Your task to perform on an android device: toggle sleep mode Image 0: 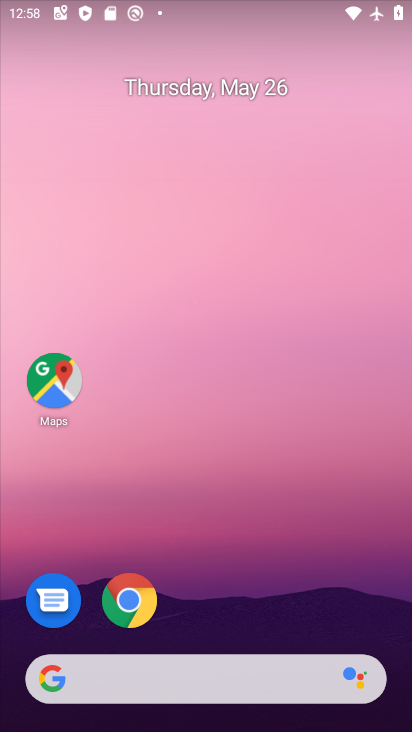
Step 0: drag from (284, 535) to (256, 126)
Your task to perform on an android device: toggle sleep mode Image 1: 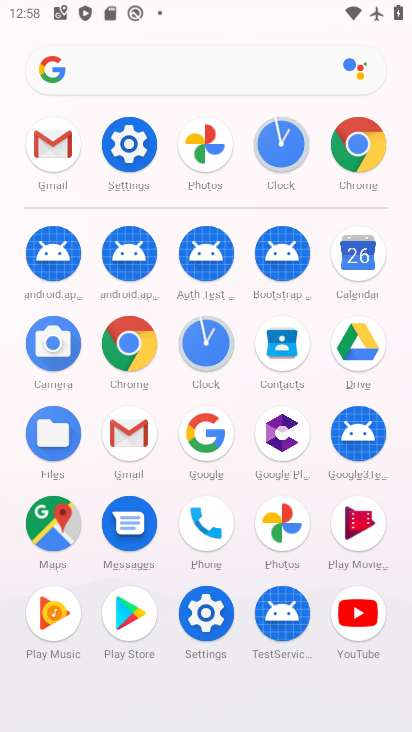
Step 1: click (137, 144)
Your task to perform on an android device: toggle sleep mode Image 2: 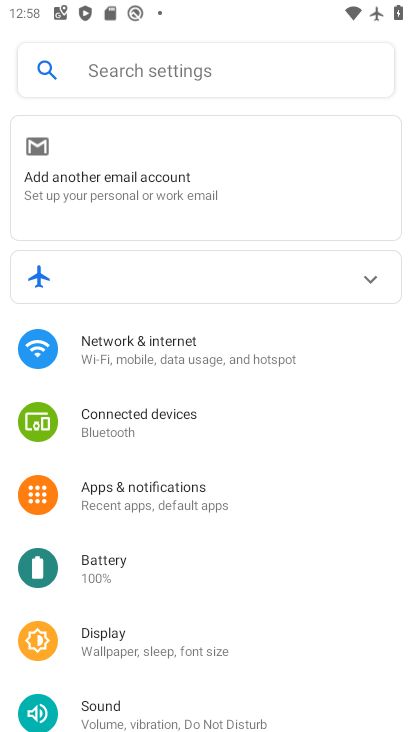
Step 2: drag from (230, 536) to (250, 226)
Your task to perform on an android device: toggle sleep mode Image 3: 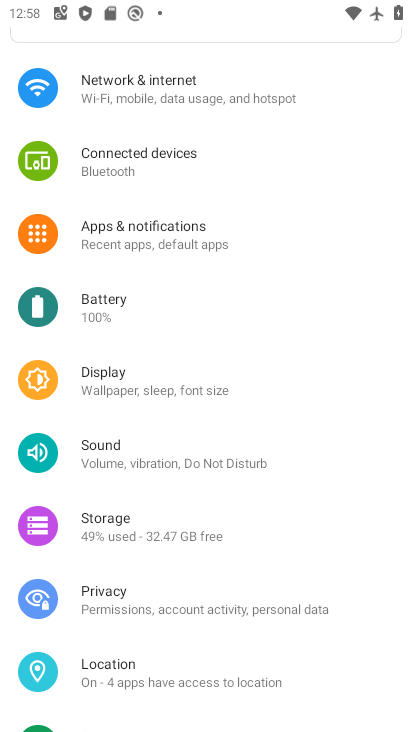
Step 3: click (89, 378)
Your task to perform on an android device: toggle sleep mode Image 4: 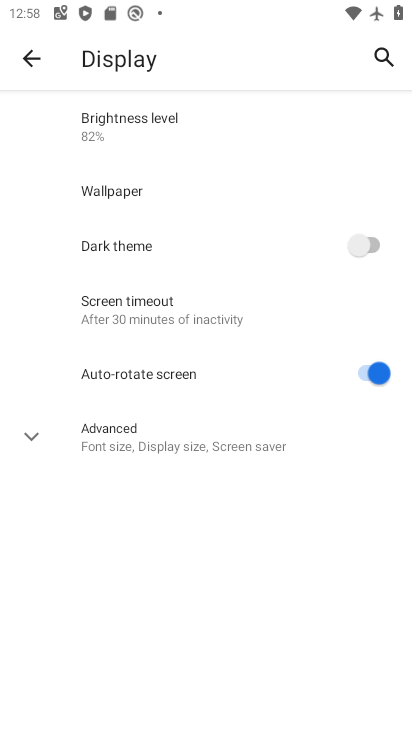
Step 4: click (159, 317)
Your task to perform on an android device: toggle sleep mode Image 5: 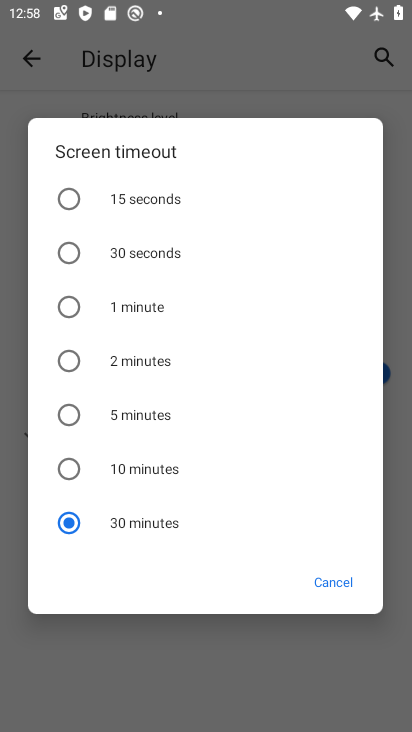
Step 5: click (158, 459)
Your task to perform on an android device: toggle sleep mode Image 6: 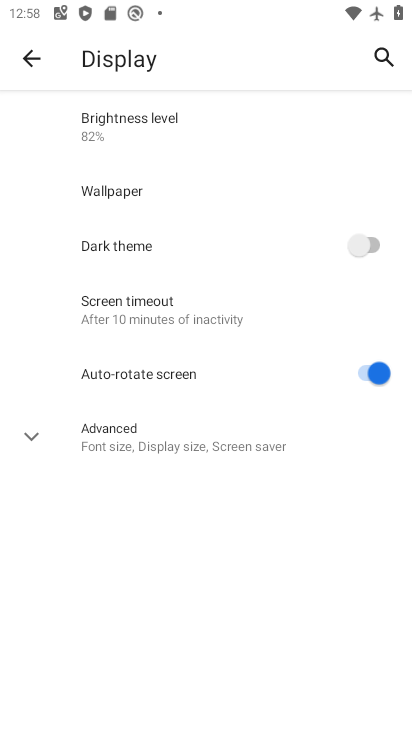
Step 6: task complete